Your task to perform on an android device: empty trash in google photos Image 0: 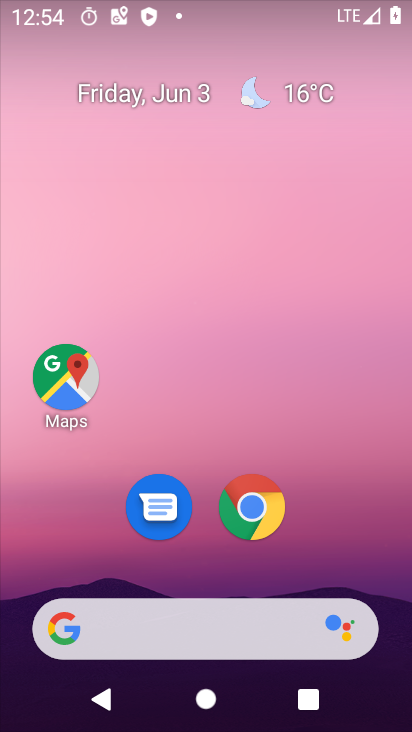
Step 0: click (393, 618)
Your task to perform on an android device: empty trash in google photos Image 1: 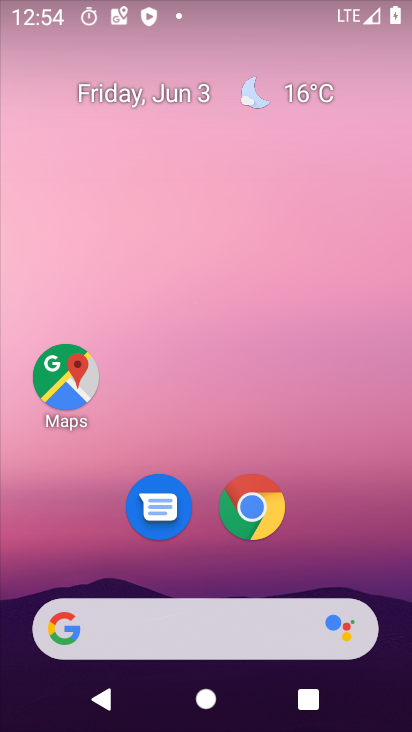
Step 1: click (304, 66)
Your task to perform on an android device: empty trash in google photos Image 2: 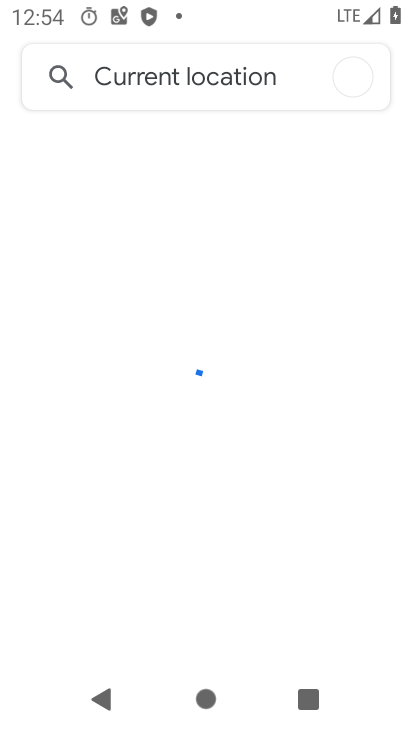
Step 2: press home button
Your task to perform on an android device: empty trash in google photos Image 3: 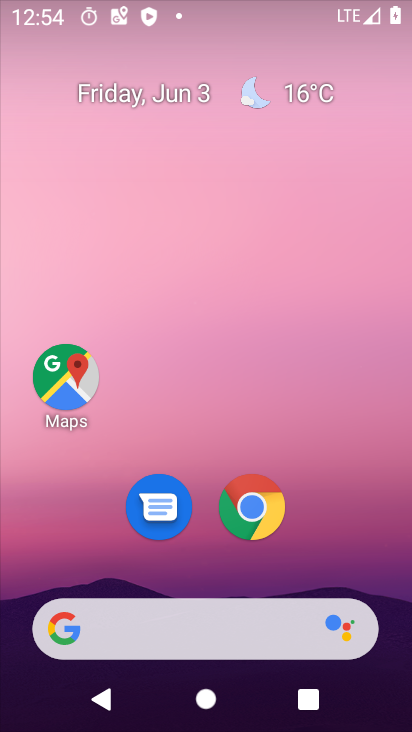
Step 3: drag from (399, 570) to (302, 42)
Your task to perform on an android device: empty trash in google photos Image 4: 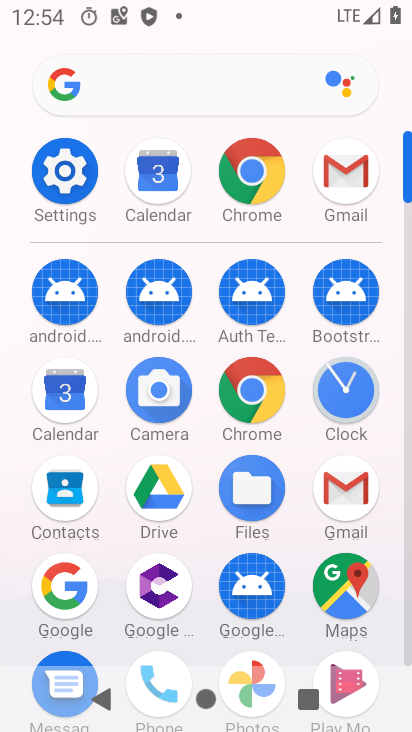
Step 4: drag from (301, 594) to (319, 214)
Your task to perform on an android device: empty trash in google photos Image 5: 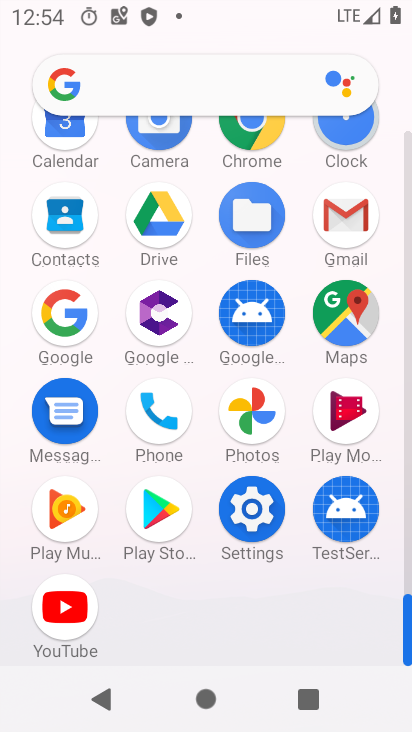
Step 5: click (257, 414)
Your task to perform on an android device: empty trash in google photos Image 6: 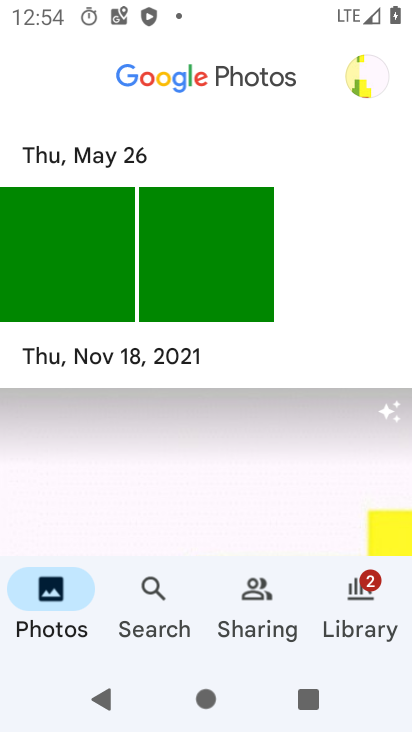
Step 6: click (351, 611)
Your task to perform on an android device: empty trash in google photos Image 7: 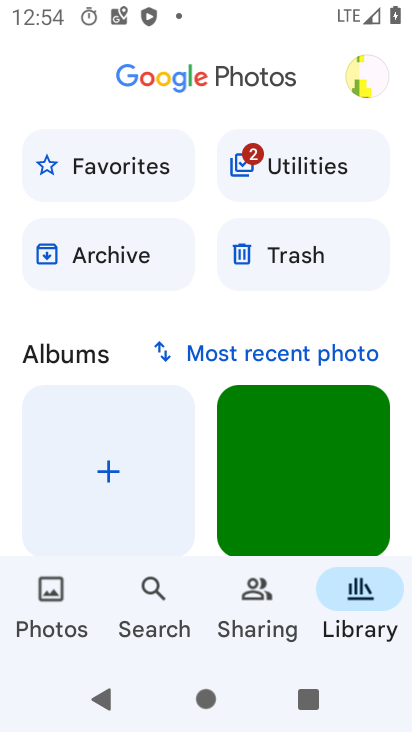
Step 7: click (322, 251)
Your task to perform on an android device: empty trash in google photos Image 8: 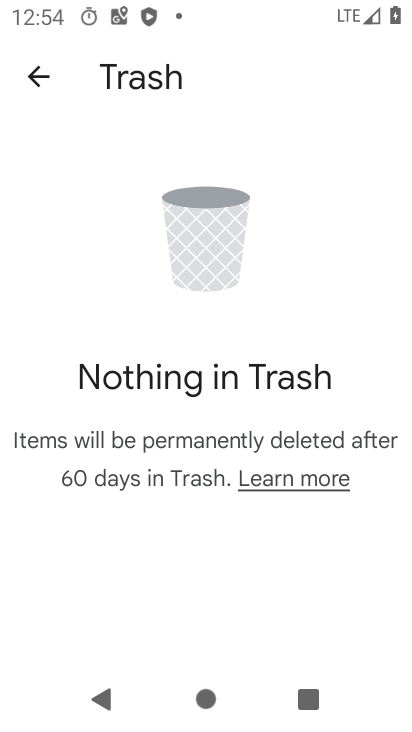
Step 8: task complete